Your task to perform on an android device: What's on the menu at Panera? Image 0: 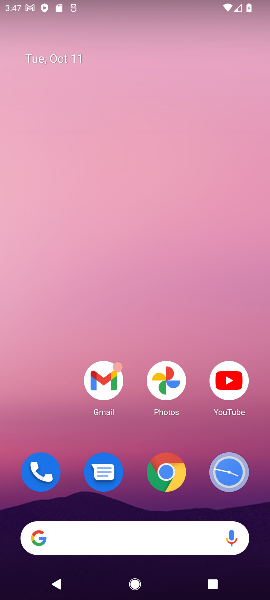
Step 0: click (151, 540)
Your task to perform on an android device: What's on the menu at Panera? Image 1: 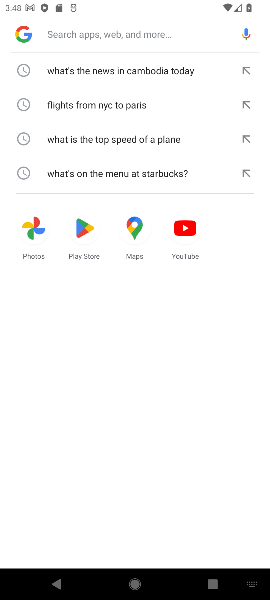
Step 1: type "What's on the menu at Panera?"
Your task to perform on an android device: What's on the menu at Panera? Image 2: 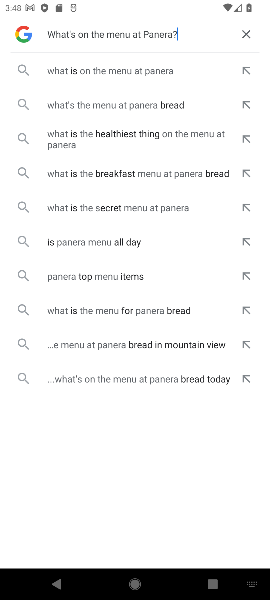
Step 2: click (130, 74)
Your task to perform on an android device: What's on the menu at Panera? Image 3: 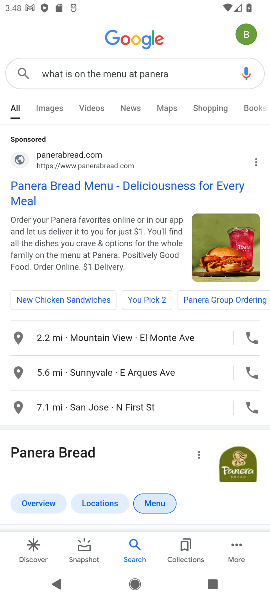
Step 3: task complete